Your task to perform on an android device: Open Amazon Image 0: 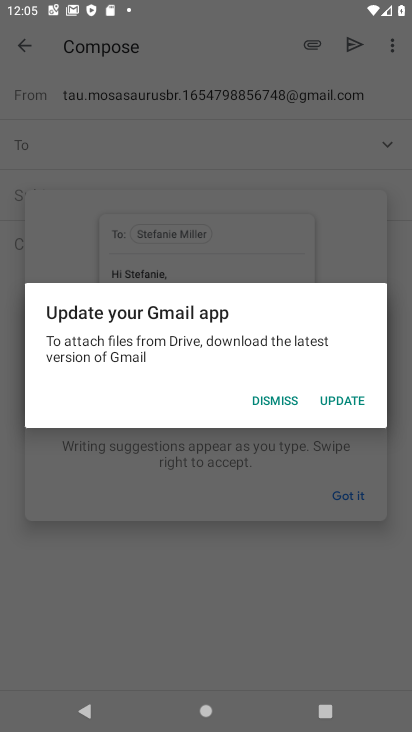
Step 0: press home button
Your task to perform on an android device: Open Amazon Image 1: 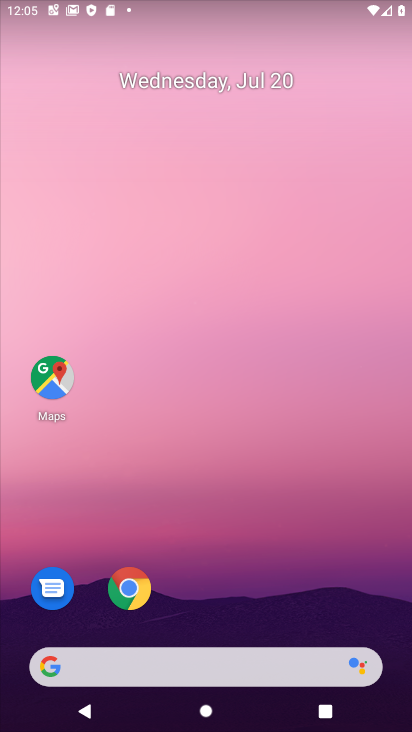
Step 1: drag from (400, 662) to (330, 102)
Your task to perform on an android device: Open Amazon Image 2: 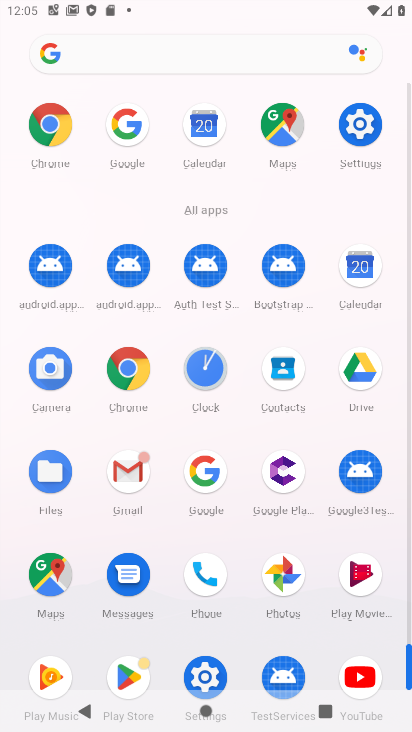
Step 2: click (116, 355)
Your task to perform on an android device: Open Amazon Image 3: 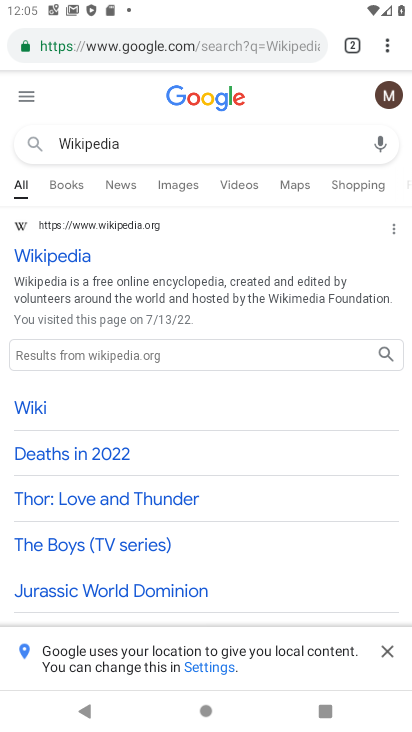
Step 3: click (217, 41)
Your task to perform on an android device: Open Amazon Image 4: 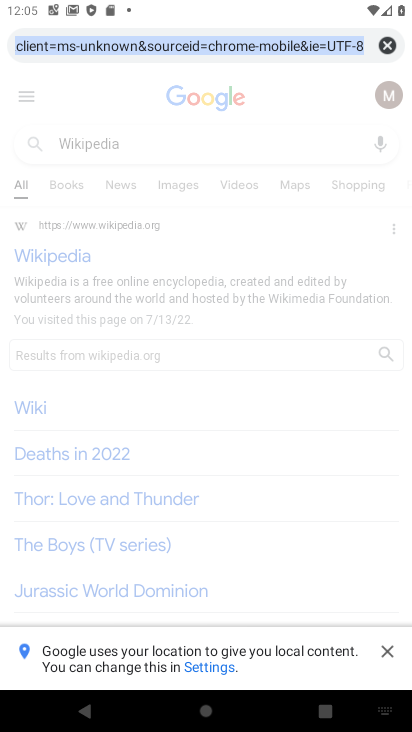
Step 4: click (393, 43)
Your task to perform on an android device: Open Amazon Image 5: 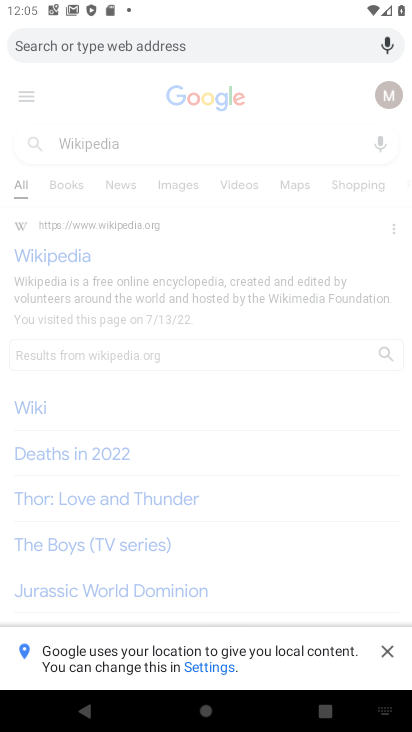
Step 5: type "Amazon"
Your task to perform on an android device: Open Amazon Image 6: 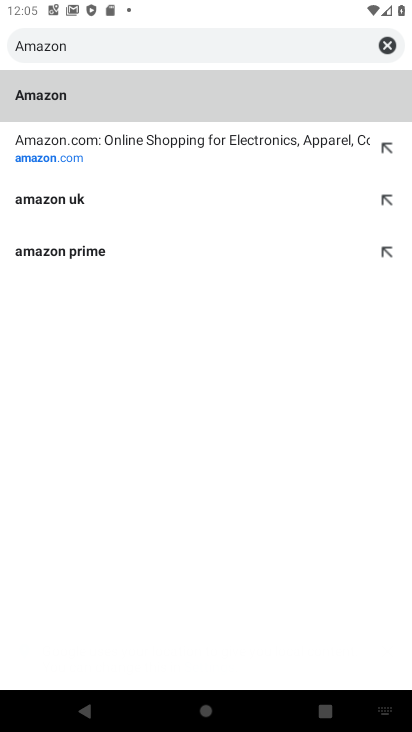
Step 6: click (38, 100)
Your task to perform on an android device: Open Amazon Image 7: 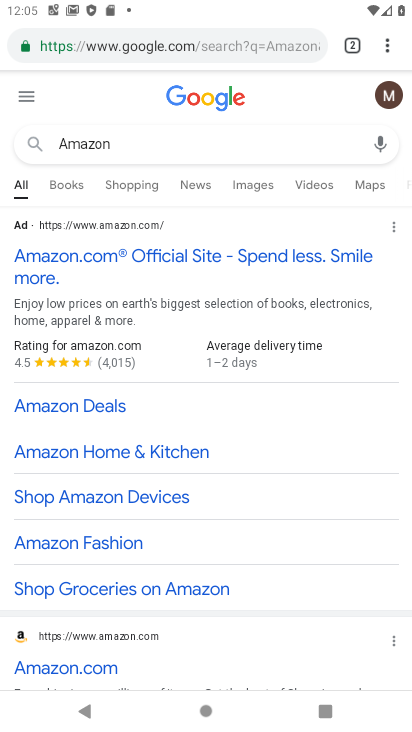
Step 7: task complete